Your task to perform on an android device: turn off sleep mode Image 0: 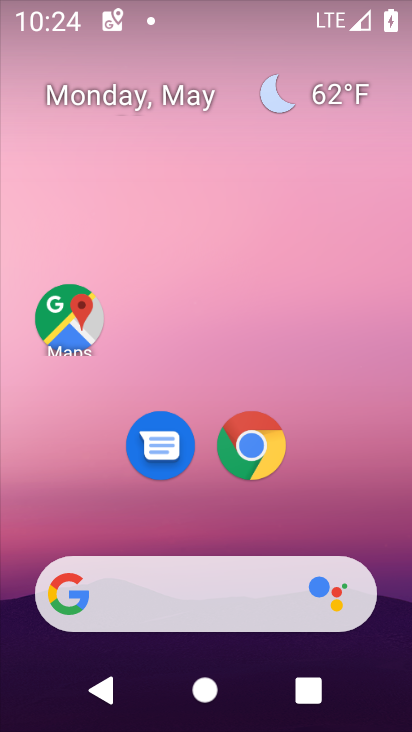
Step 0: drag from (400, 607) to (272, 33)
Your task to perform on an android device: turn off sleep mode Image 1: 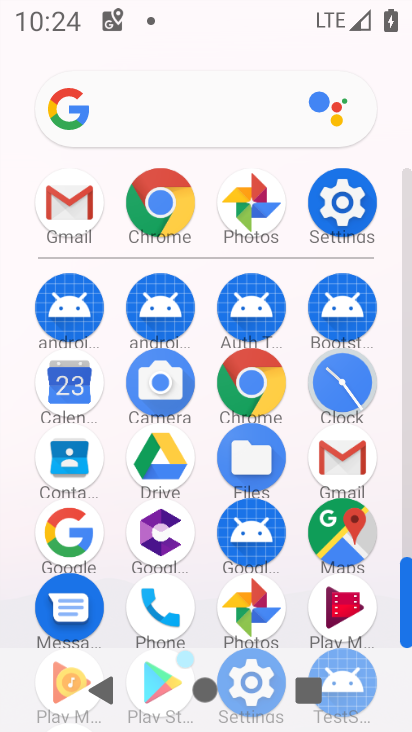
Step 1: click (360, 208)
Your task to perform on an android device: turn off sleep mode Image 2: 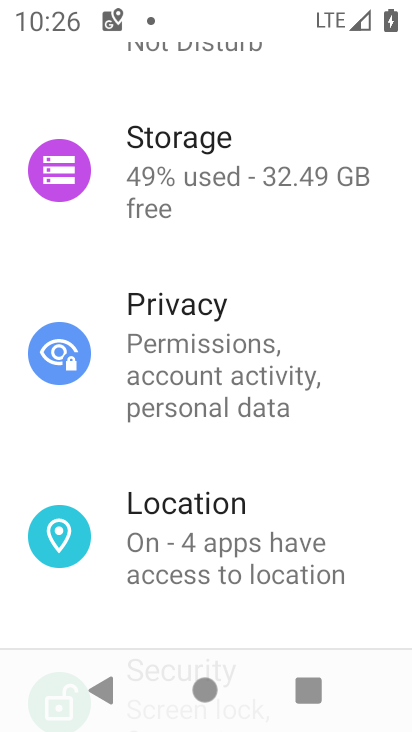
Step 2: task complete